Your task to perform on an android device: create a new album in the google photos Image 0: 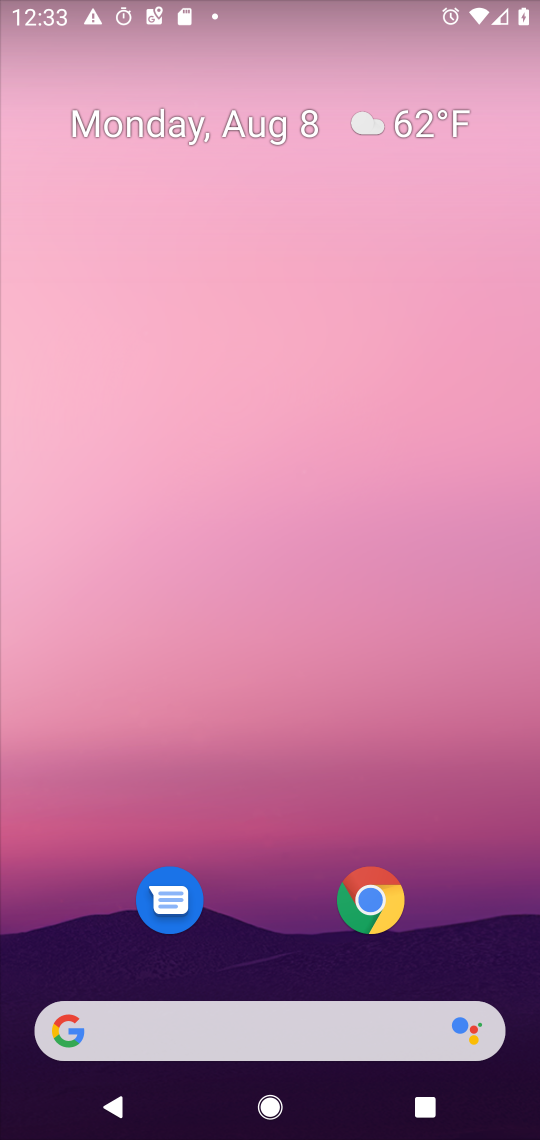
Step 0: press home button
Your task to perform on an android device: create a new album in the google photos Image 1: 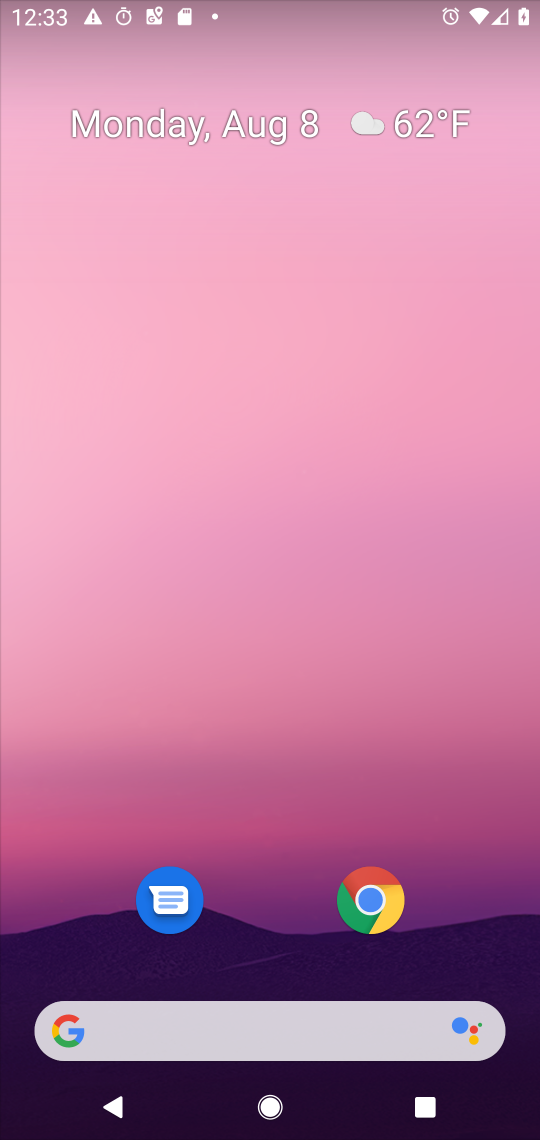
Step 1: drag from (269, 951) to (265, 195)
Your task to perform on an android device: create a new album in the google photos Image 2: 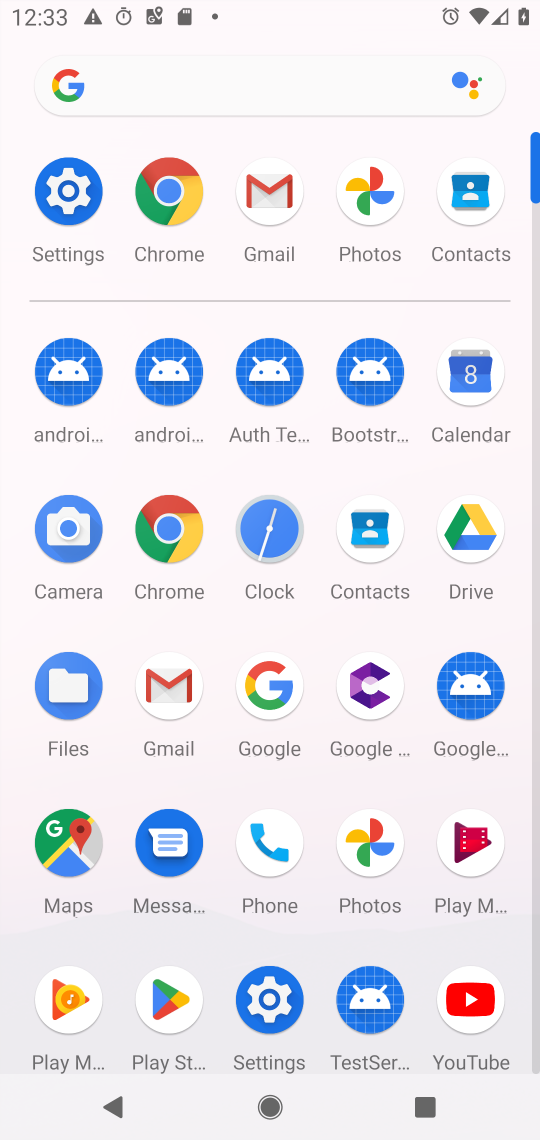
Step 2: click (373, 181)
Your task to perform on an android device: create a new album in the google photos Image 3: 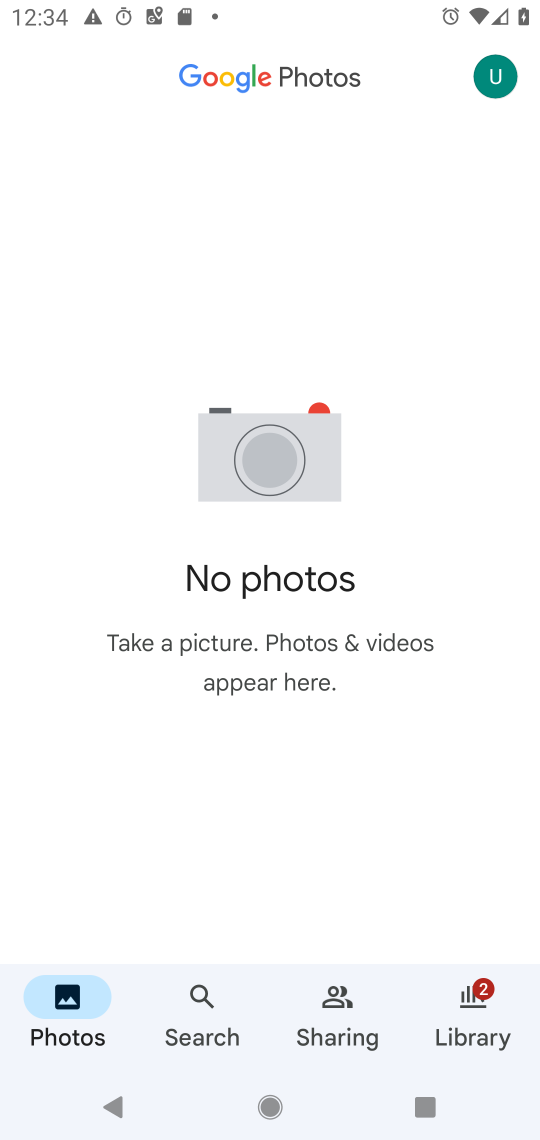
Step 3: click (328, 1017)
Your task to perform on an android device: create a new album in the google photos Image 4: 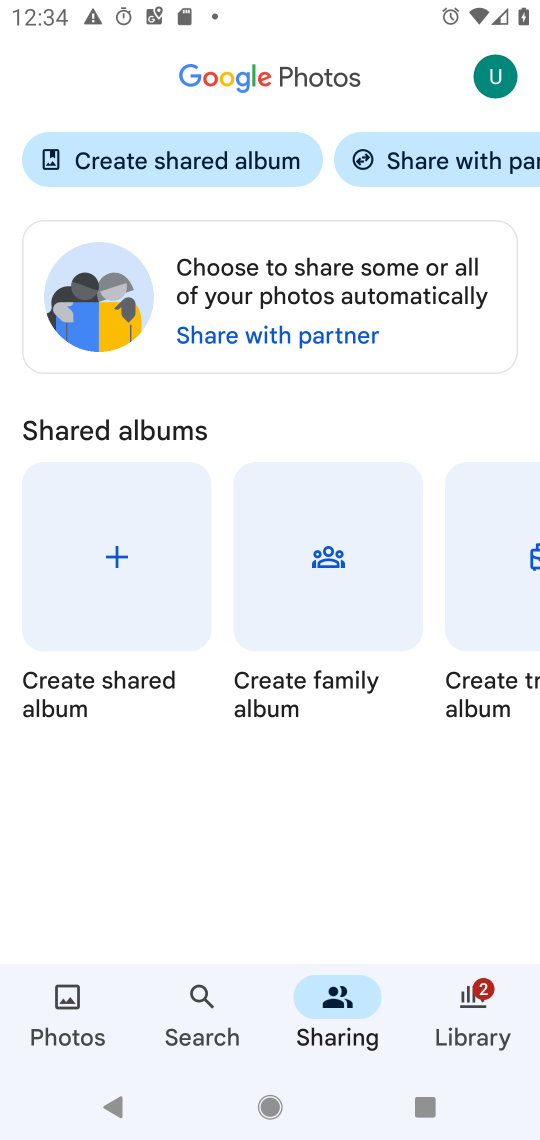
Step 4: click (216, 241)
Your task to perform on an android device: create a new album in the google photos Image 5: 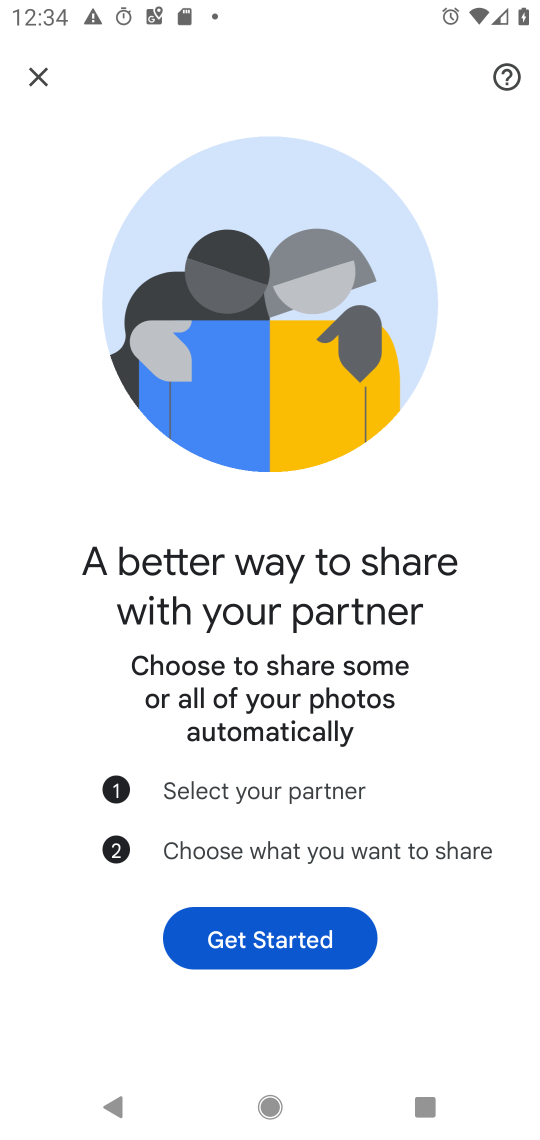
Step 5: click (236, 950)
Your task to perform on an android device: create a new album in the google photos Image 6: 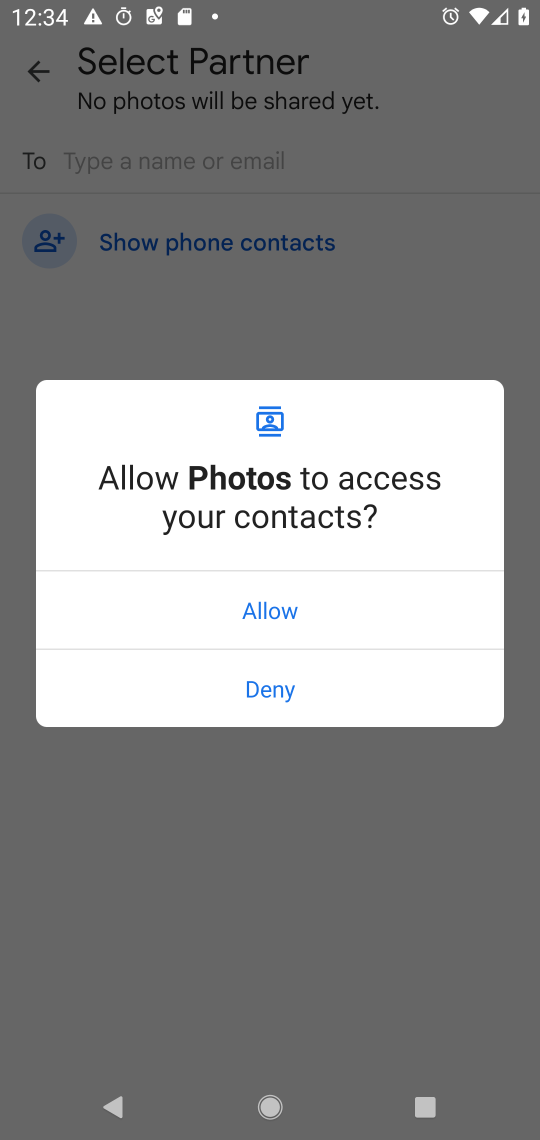
Step 6: click (277, 599)
Your task to perform on an android device: create a new album in the google photos Image 7: 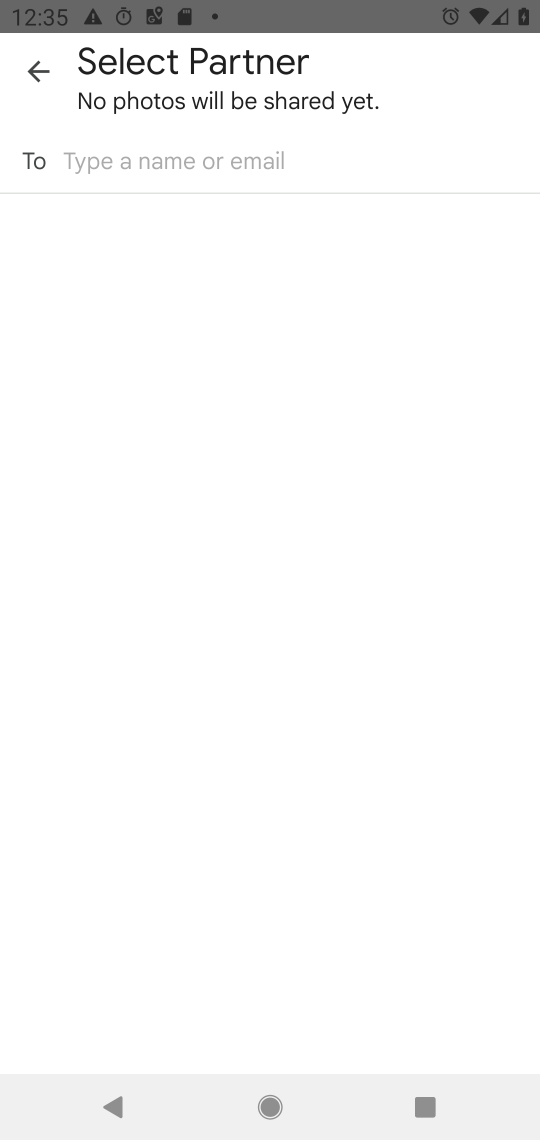
Step 7: task complete